Your task to perform on an android device: Open notification settings Image 0: 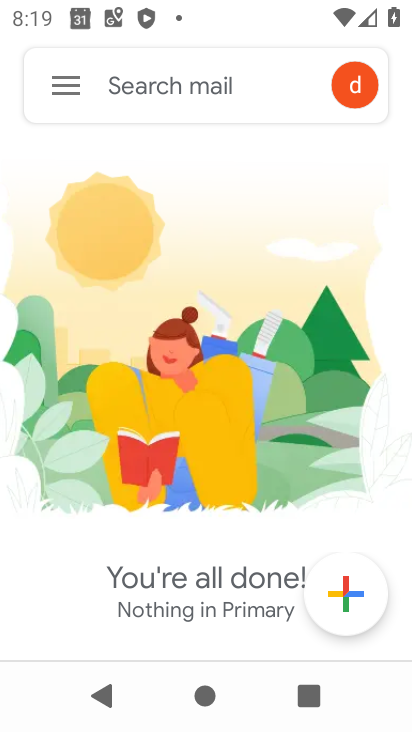
Step 0: press home button
Your task to perform on an android device: Open notification settings Image 1: 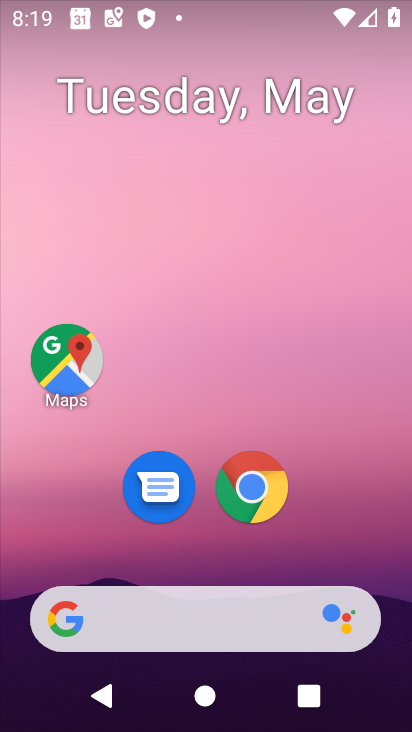
Step 1: drag from (376, 548) to (373, 254)
Your task to perform on an android device: Open notification settings Image 2: 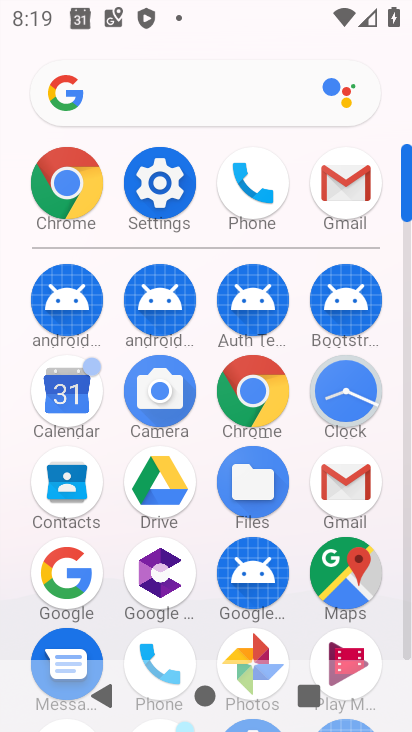
Step 2: click (184, 209)
Your task to perform on an android device: Open notification settings Image 3: 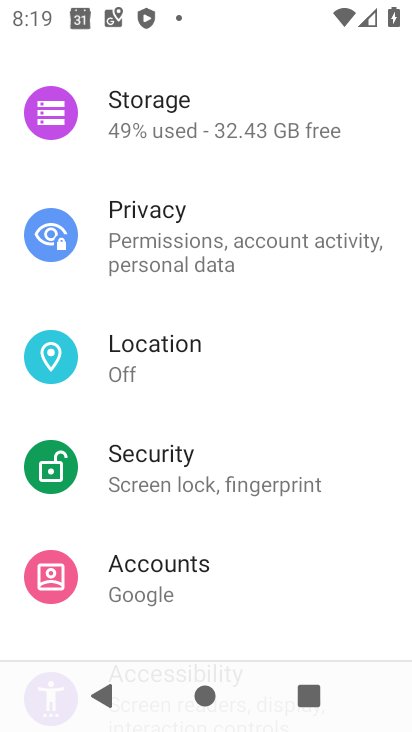
Step 3: drag from (337, 323) to (326, 435)
Your task to perform on an android device: Open notification settings Image 4: 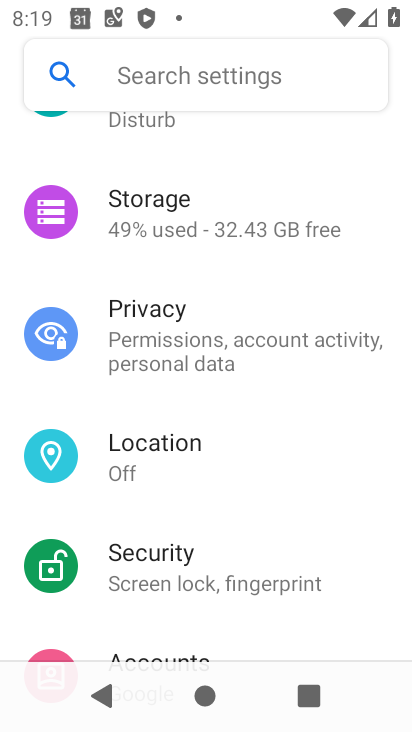
Step 4: drag from (335, 273) to (331, 399)
Your task to perform on an android device: Open notification settings Image 5: 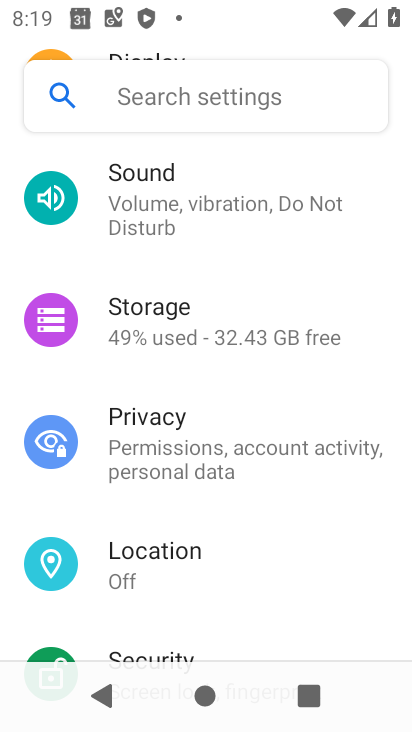
Step 5: drag from (355, 242) to (350, 342)
Your task to perform on an android device: Open notification settings Image 6: 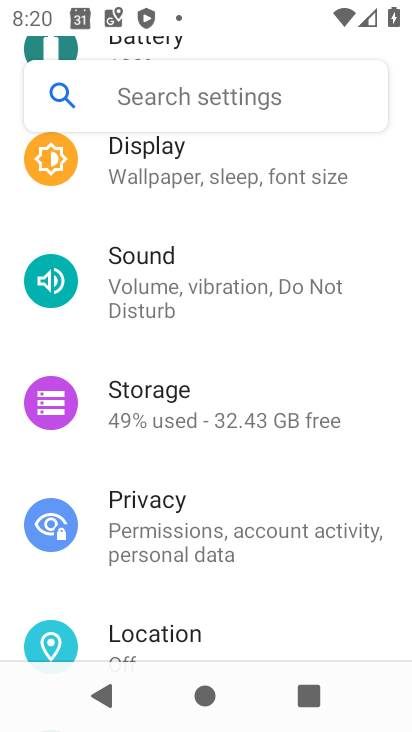
Step 6: drag from (367, 226) to (371, 281)
Your task to perform on an android device: Open notification settings Image 7: 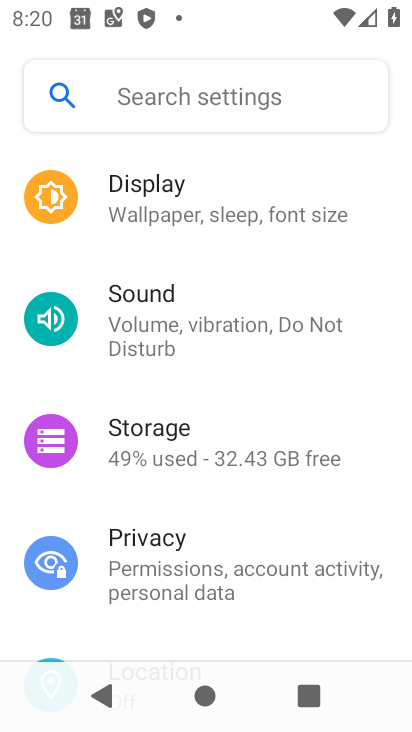
Step 7: drag from (378, 223) to (375, 317)
Your task to perform on an android device: Open notification settings Image 8: 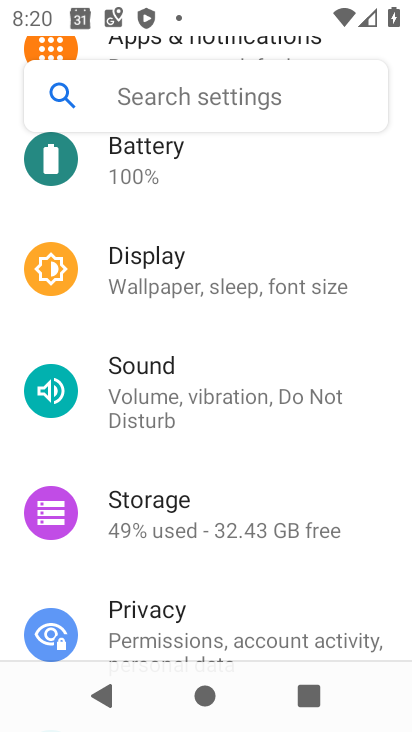
Step 8: drag from (371, 223) to (364, 327)
Your task to perform on an android device: Open notification settings Image 9: 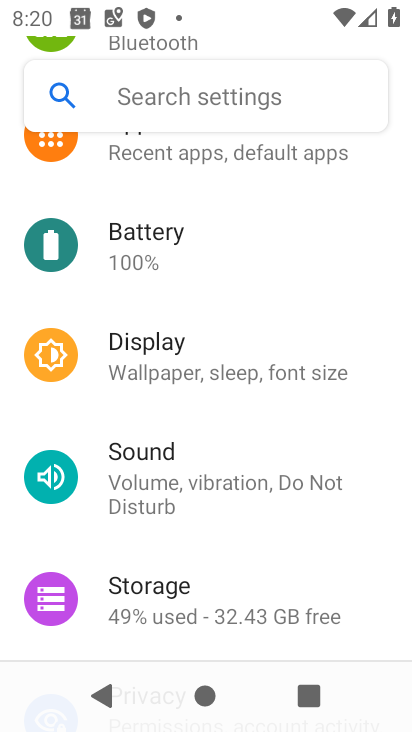
Step 9: drag from (361, 211) to (364, 322)
Your task to perform on an android device: Open notification settings Image 10: 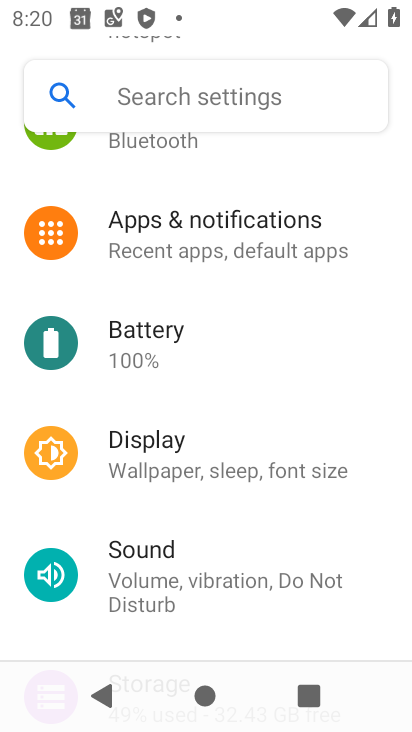
Step 10: drag from (363, 194) to (366, 294)
Your task to perform on an android device: Open notification settings Image 11: 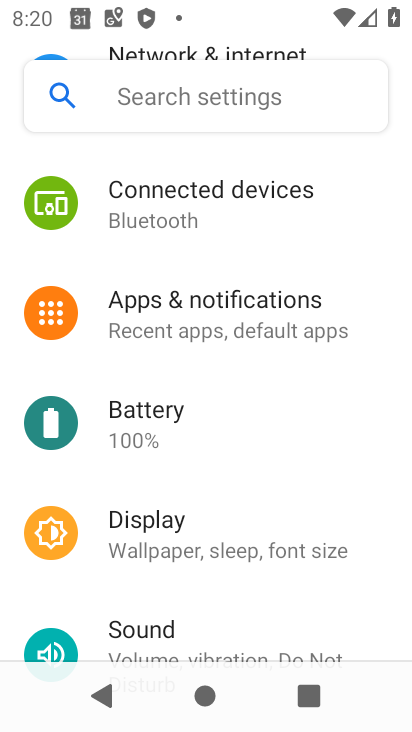
Step 11: drag from (362, 193) to (366, 292)
Your task to perform on an android device: Open notification settings Image 12: 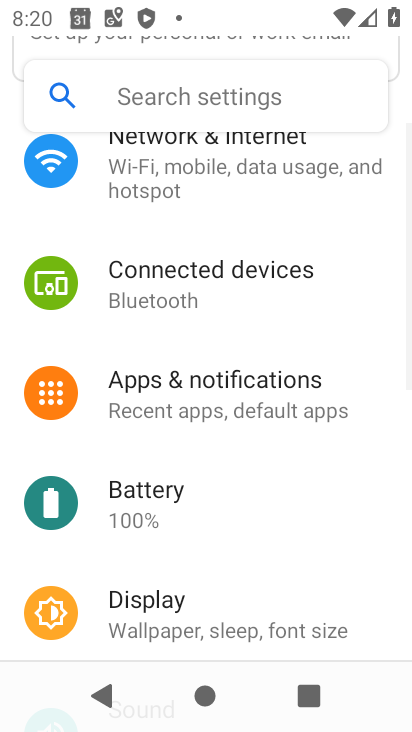
Step 12: click (343, 375)
Your task to perform on an android device: Open notification settings Image 13: 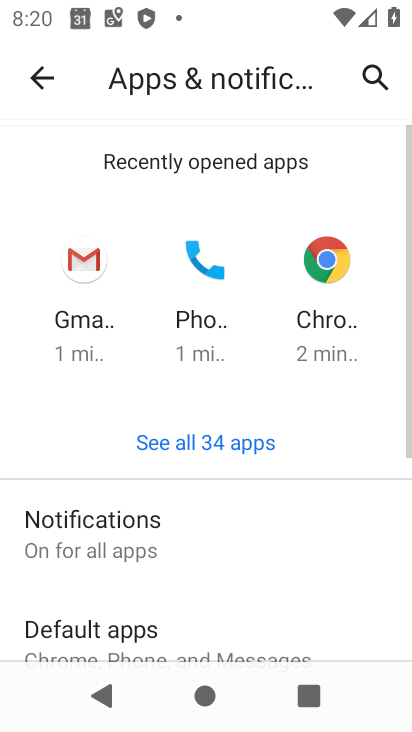
Step 13: click (237, 525)
Your task to perform on an android device: Open notification settings Image 14: 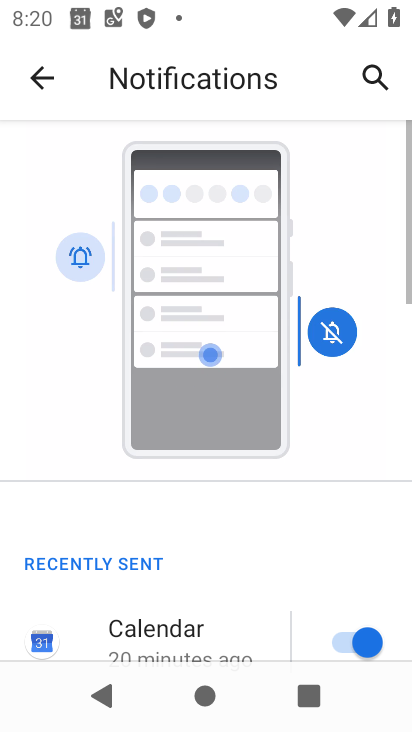
Step 14: task complete